Your task to perform on an android device: Go to wifi settings Image 0: 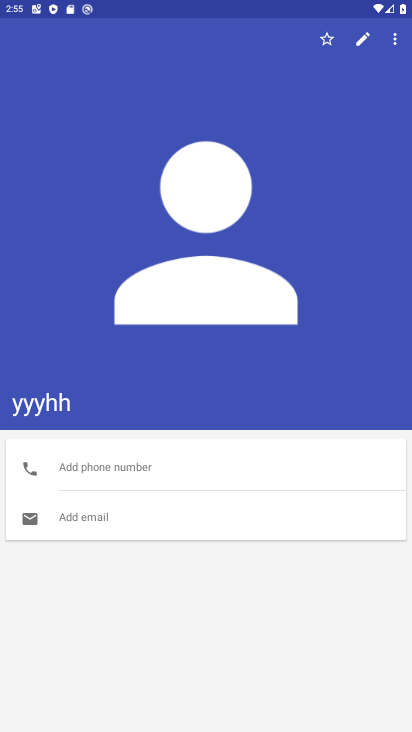
Step 0: press home button
Your task to perform on an android device: Go to wifi settings Image 1: 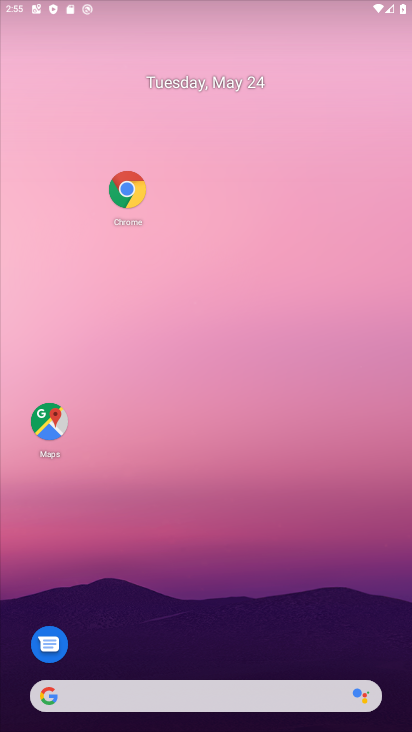
Step 1: drag from (242, 618) to (356, 81)
Your task to perform on an android device: Go to wifi settings Image 2: 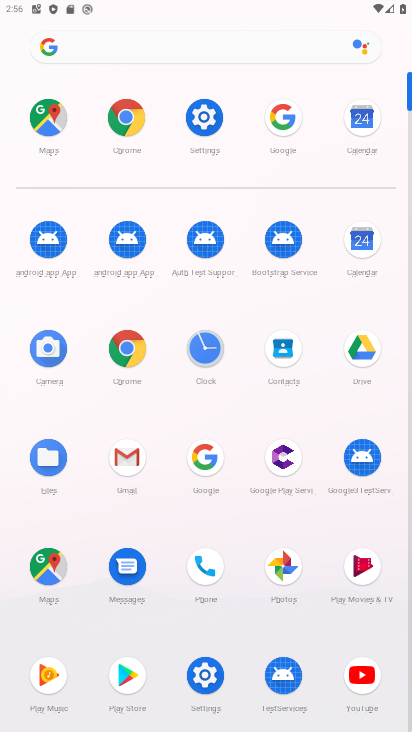
Step 2: click (210, 117)
Your task to perform on an android device: Go to wifi settings Image 3: 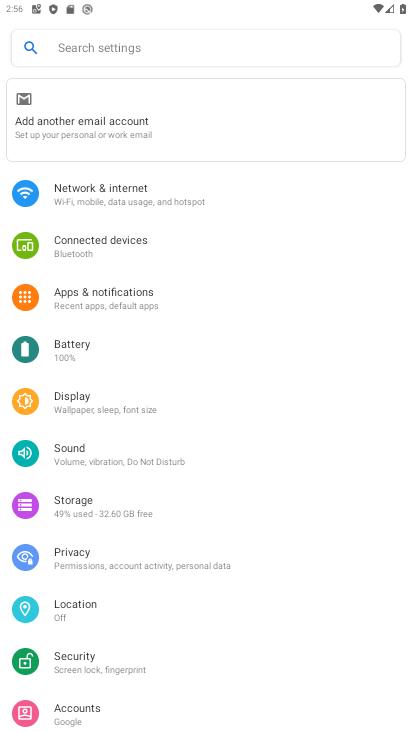
Step 3: click (179, 199)
Your task to perform on an android device: Go to wifi settings Image 4: 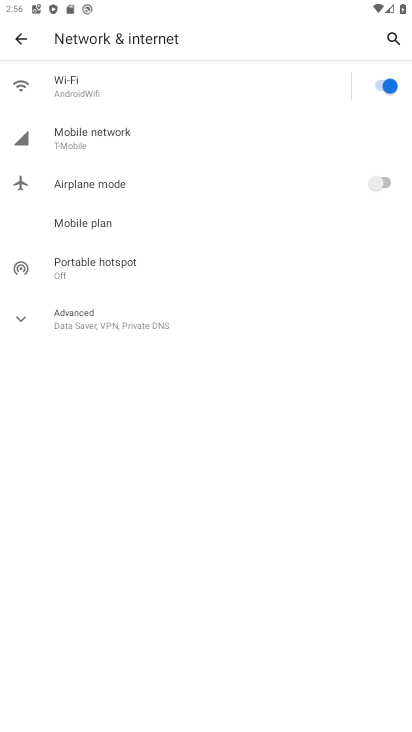
Step 4: click (167, 87)
Your task to perform on an android device: Go to wifi settings Image 5: 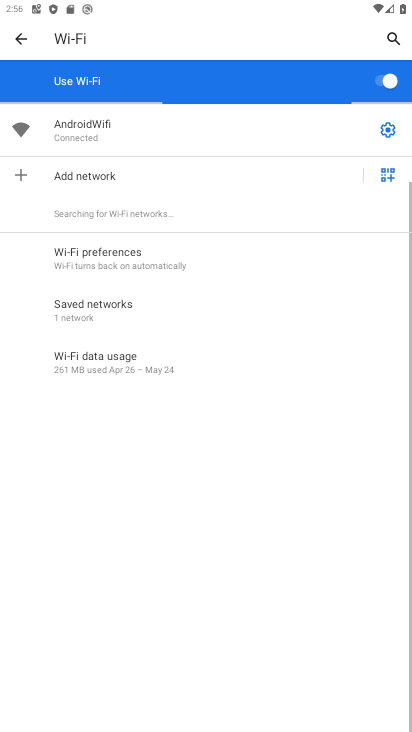
Step 5: click (389, 130)
Your task to perform on an android device: Go to wifi settings Image 6: 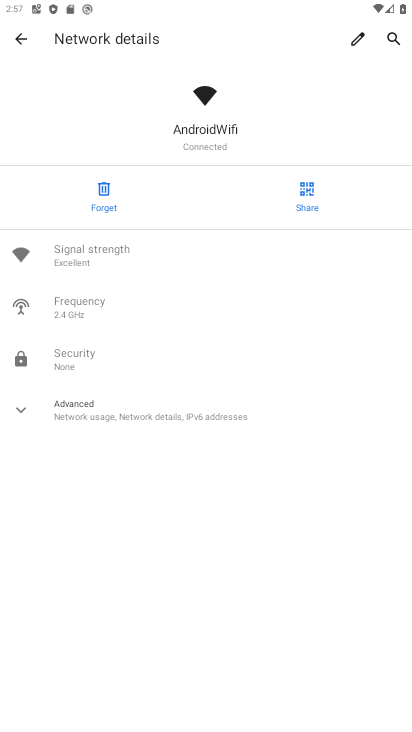
Step 6: task complete